Your task to perform on an android device: open chrome and create a bookmark for the current page Image 0: 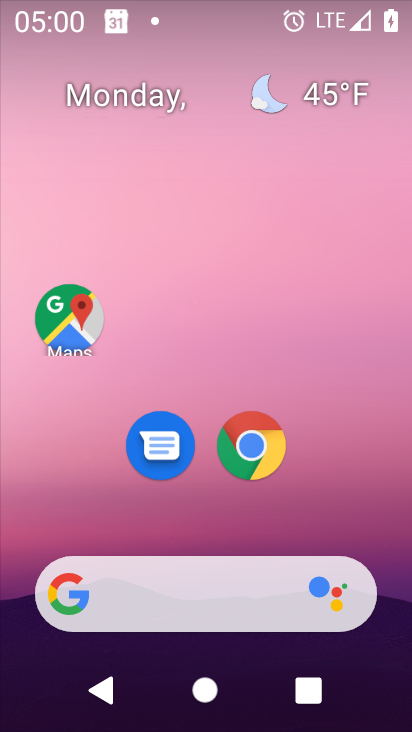
Step 0: click (249, 460)
Your task to perform on an android device: open chrome and create a bookmark for the current page Image 1: 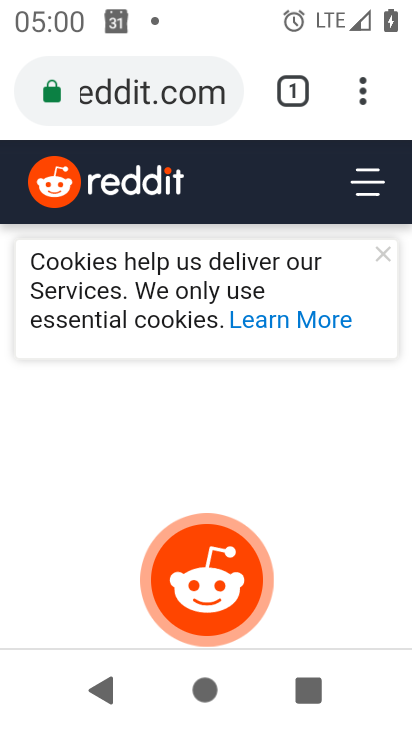
Step 1: click (146, 619)
Your task to perform on an android device: open chrome and create a bookmark for the current page Image 2: 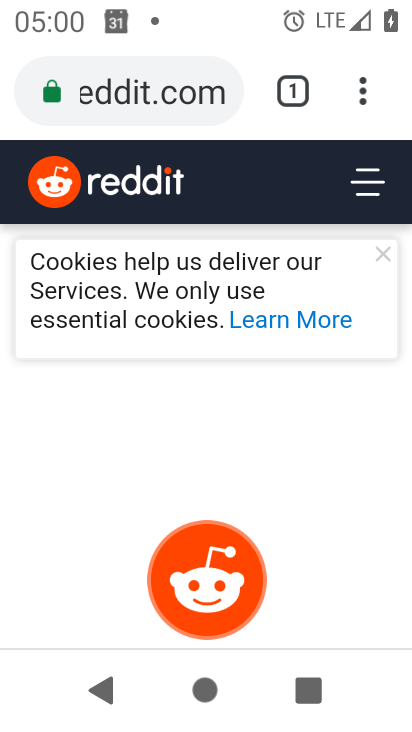
Step 2: click (374, 97)
Your task to perform on an android device: open chrome and create a bookmark for the current page Image 3: 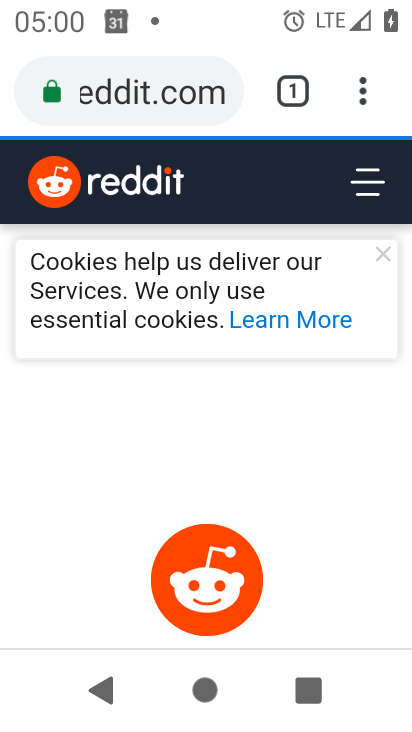
Step 3: click (352, 91)
Your task to perform on an android device: open chrome and create a bookmark for the current page Image 4: 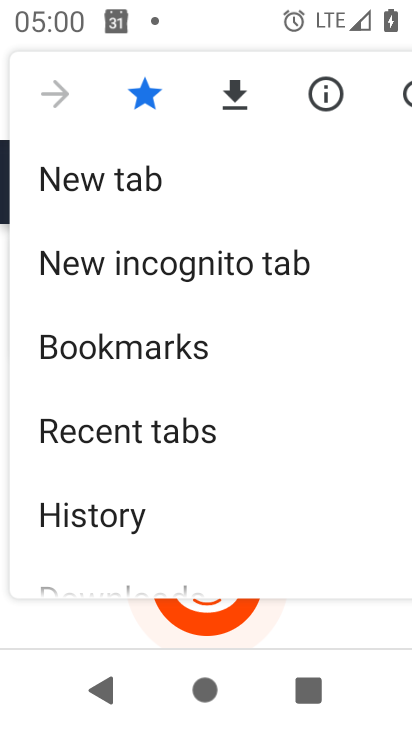
Step 4: task complete